Your task to perform on an android device: visit the assistant section in the google photos Image 0: 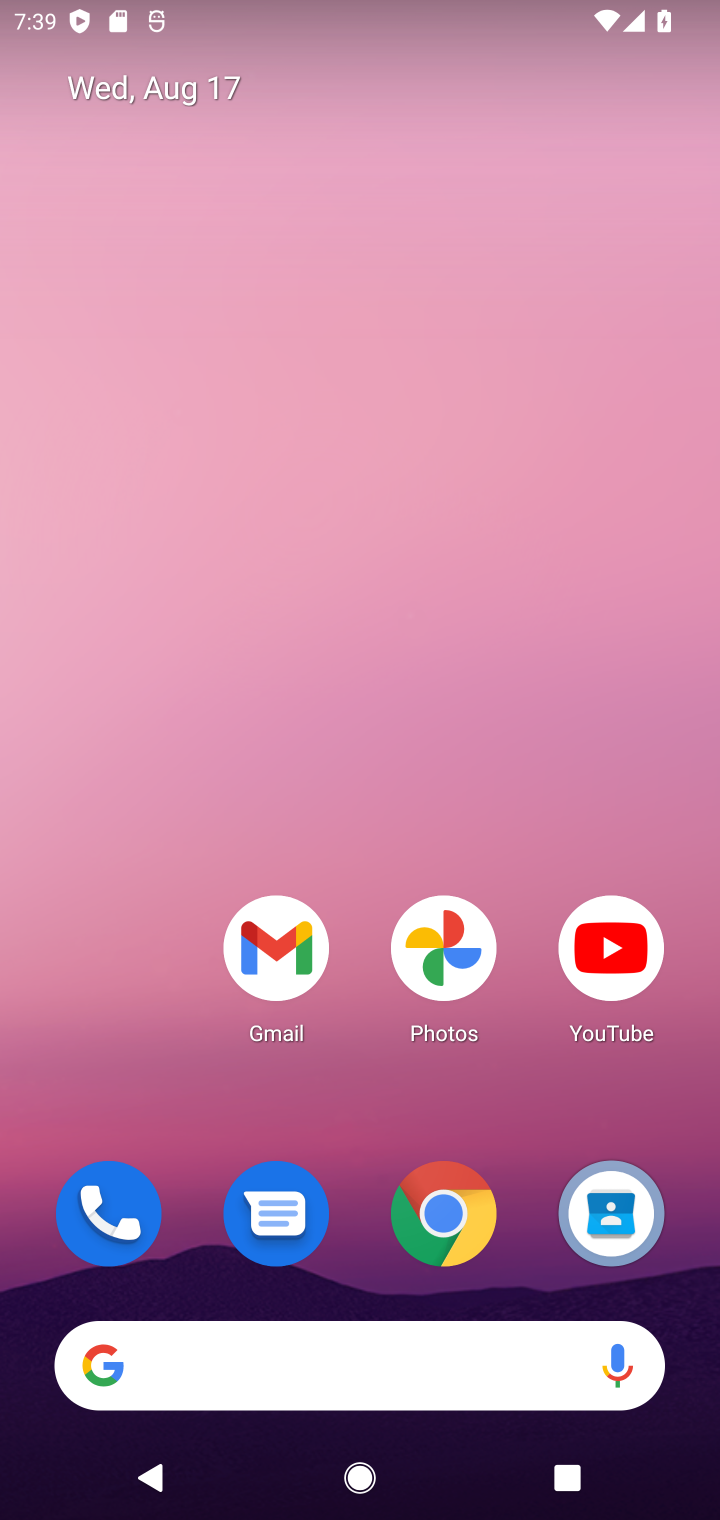
Step 0: click (465, 973)
Your task to perform on an android device: visit the assistant section in the google photos Image 1: 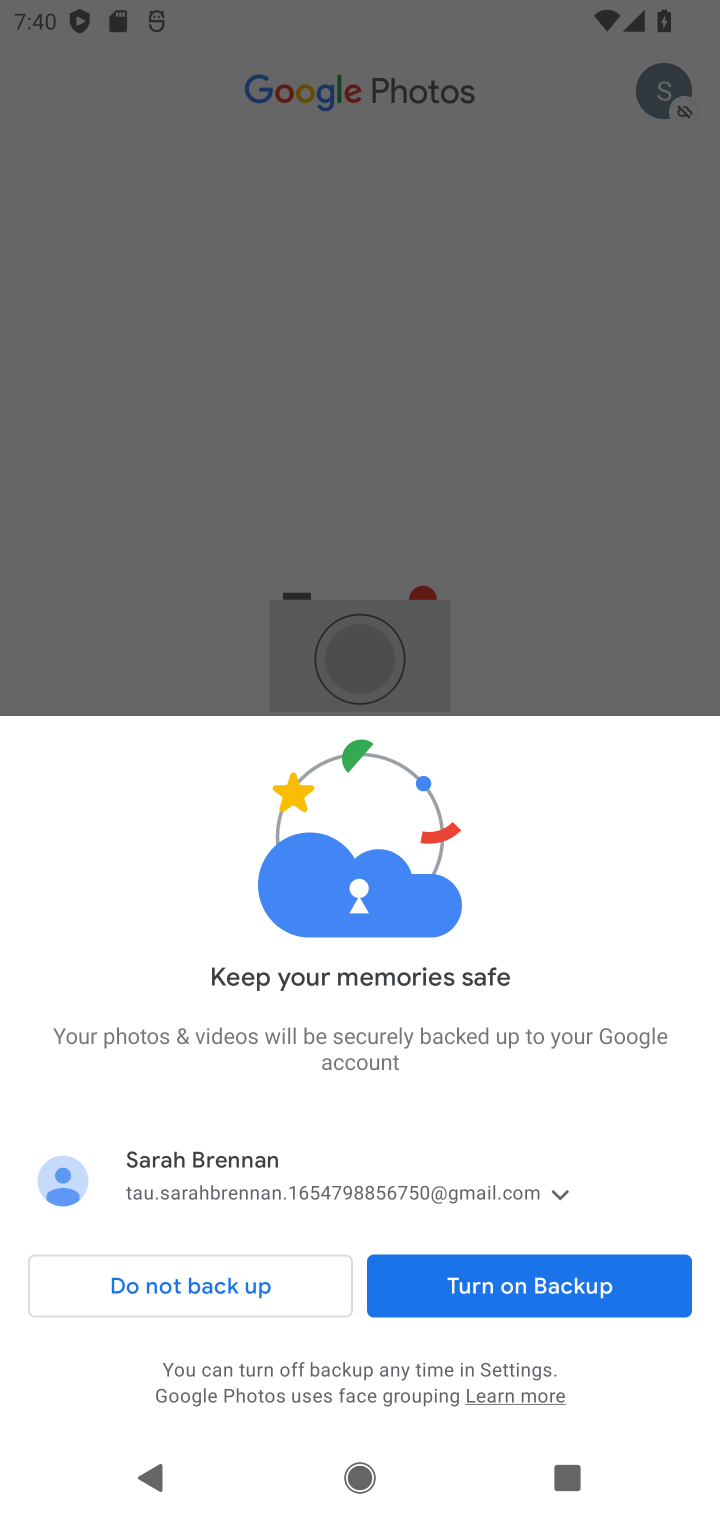
Step 1: click (212, 1293)
Your task to perform on an android device: visit the assistant section in the google photos Image 2: 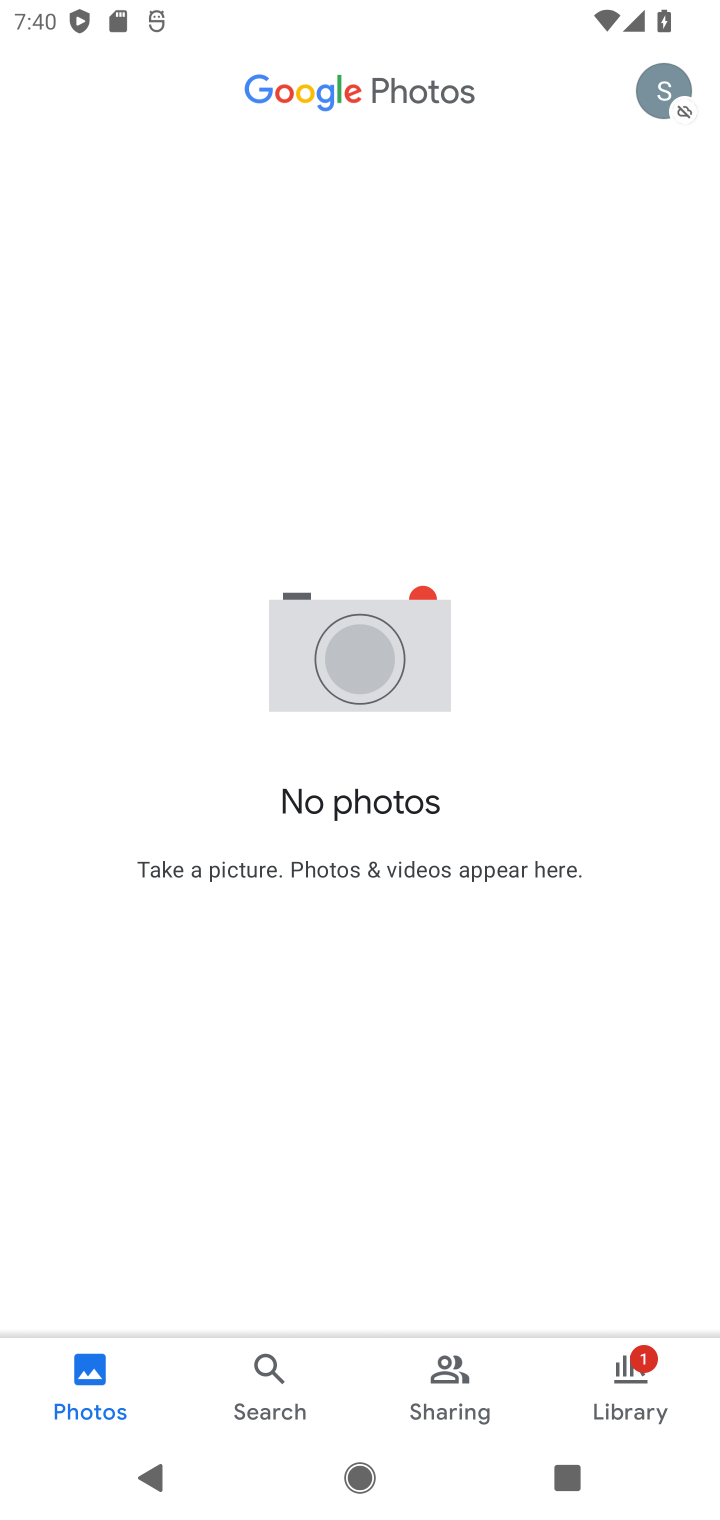
Step 2: task complete